Your task to perform on an android device: add a contact Image 0: 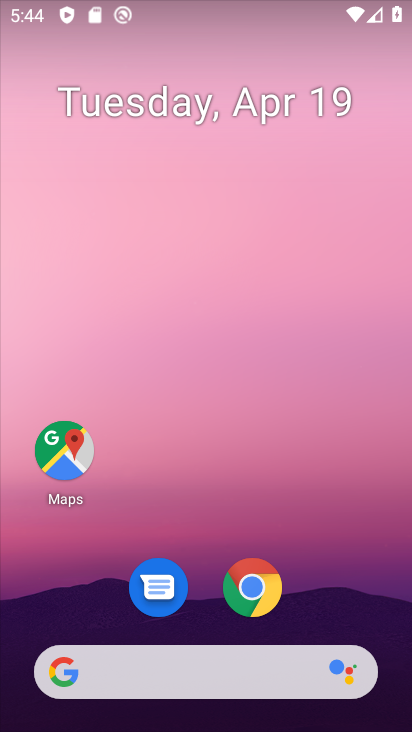
Step 0: drag from (192, 550) to (163, 49)
Your task to perform on an android device: add a contact Image 1: 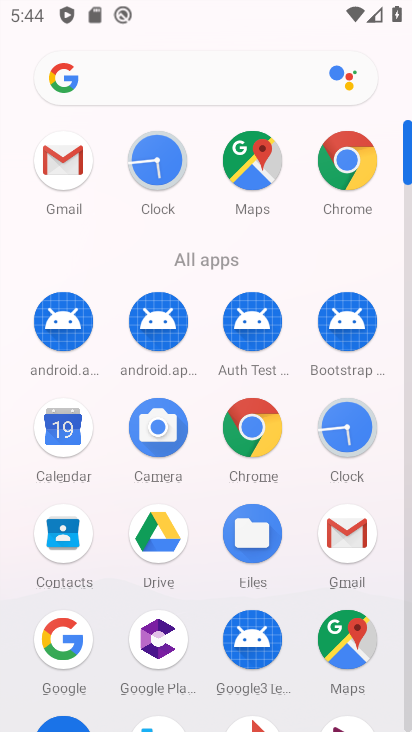
Step 1: click (61, 523)
Your task to perform on an android device: add a contact Image 2: 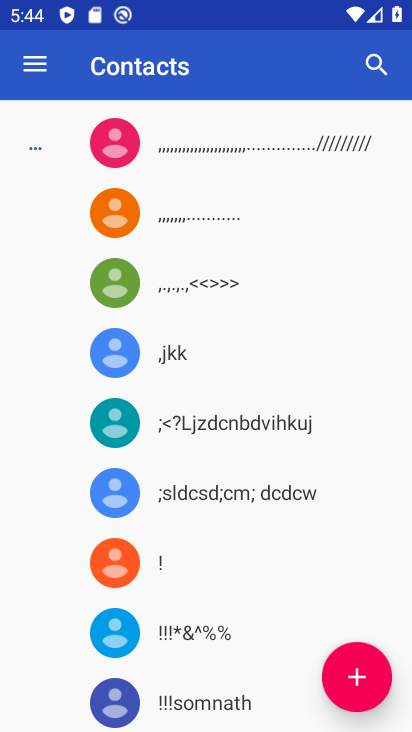
Step 2: click (357, 711)
Your task to perform on an android device: add a contact Image 3: 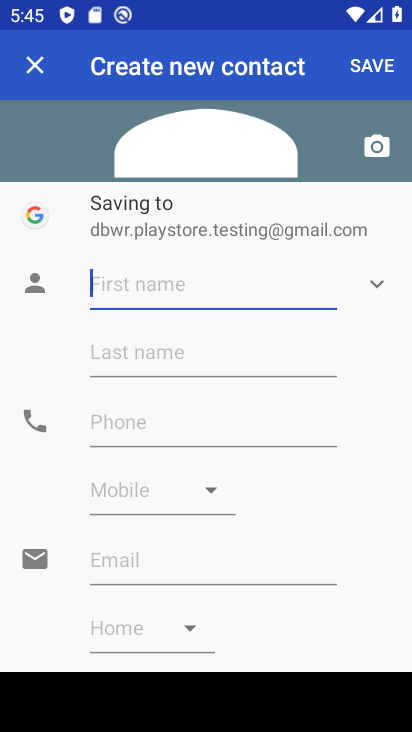
Step 3: type "op"
Your task to perform on an android device: add a contact Image 4: 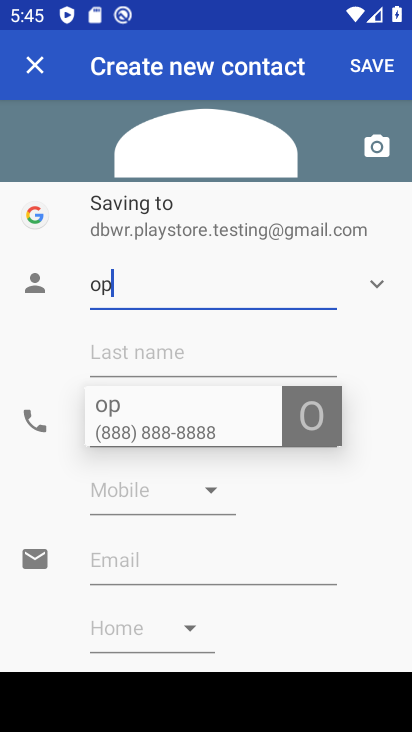
Step 4: type "a"
Your task to perform on an android device: add a contact Image 5: 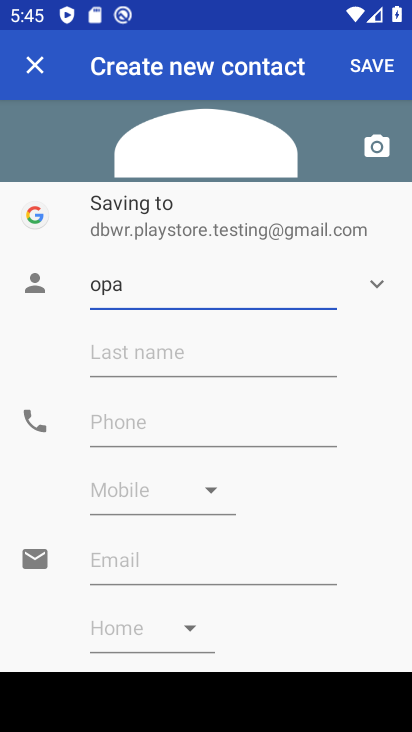
Step 5: click (295, 426)
Your task to perform on an android device: add a contact Image 6: 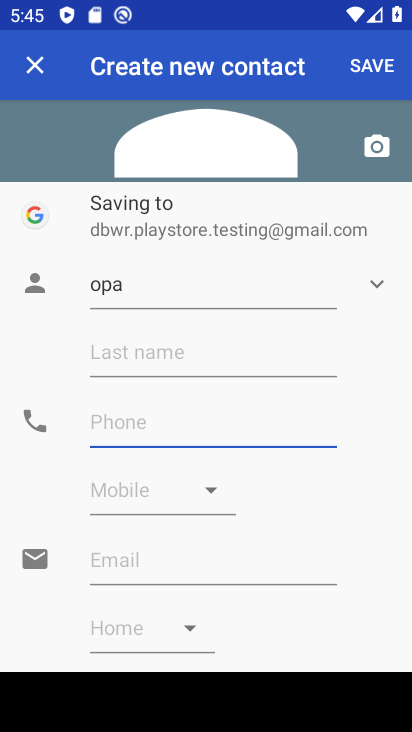
Step 6: type "8765434567"
Your task to perform on an android device: add a contact Image 7: 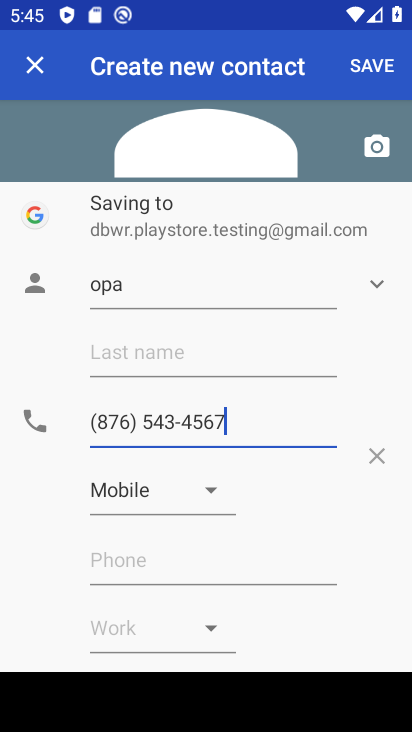
Step 7: click (377, 61)
Your task to perform on an android device: add a contact Image 8: 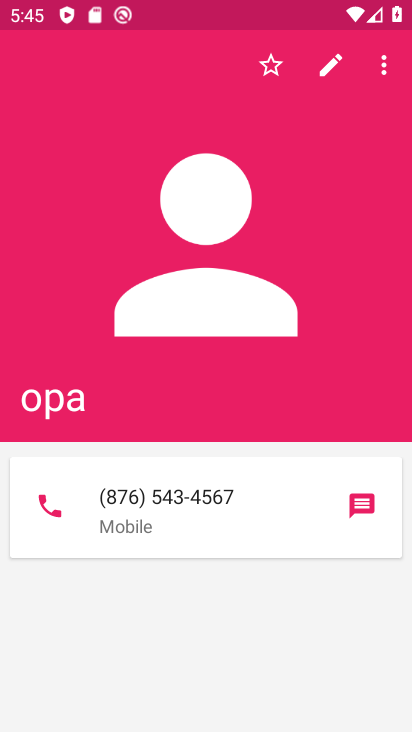
Step 8: task complete